Your task to perform on an android device: Open accessibility settings Image 0: 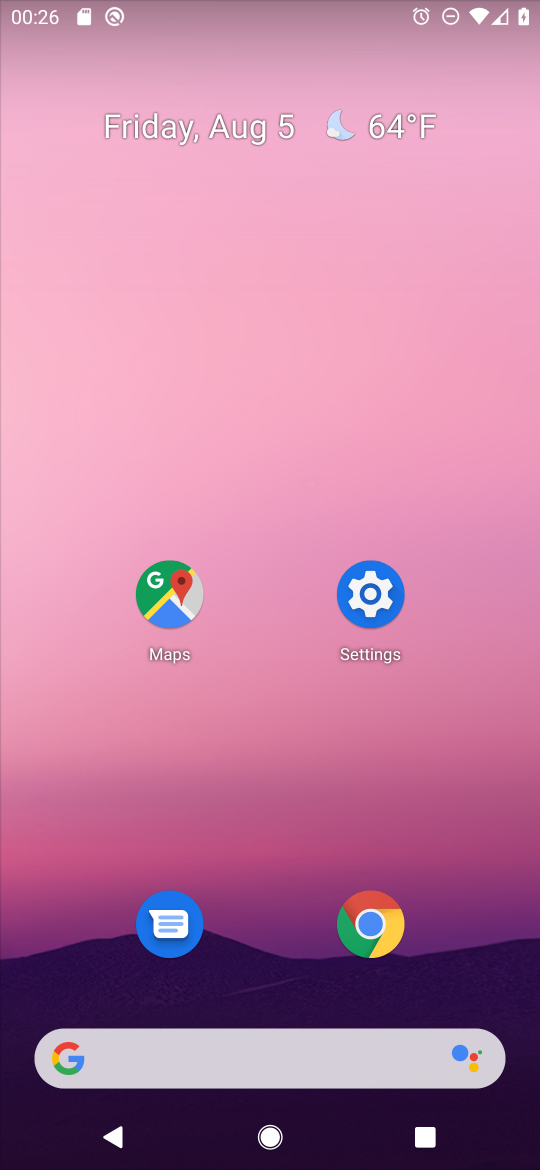
Step 0: click (374, 606)
Your task to perform on an android device: Open accessibility settings Image 1: 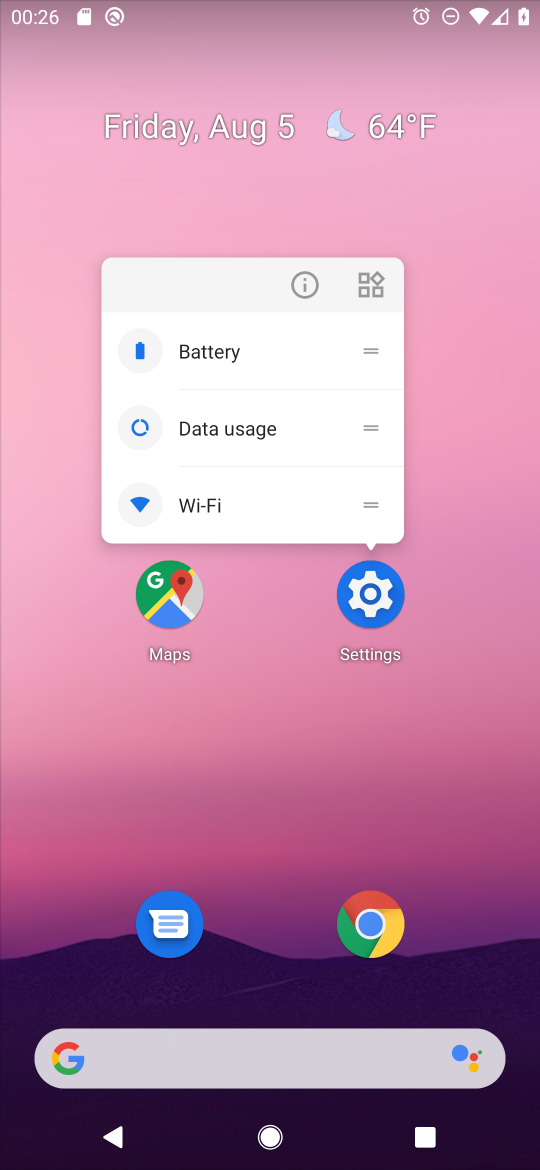
Step 1: click (378, 599)
Your task to perform on an android device: Open accessibility settings Image 2: 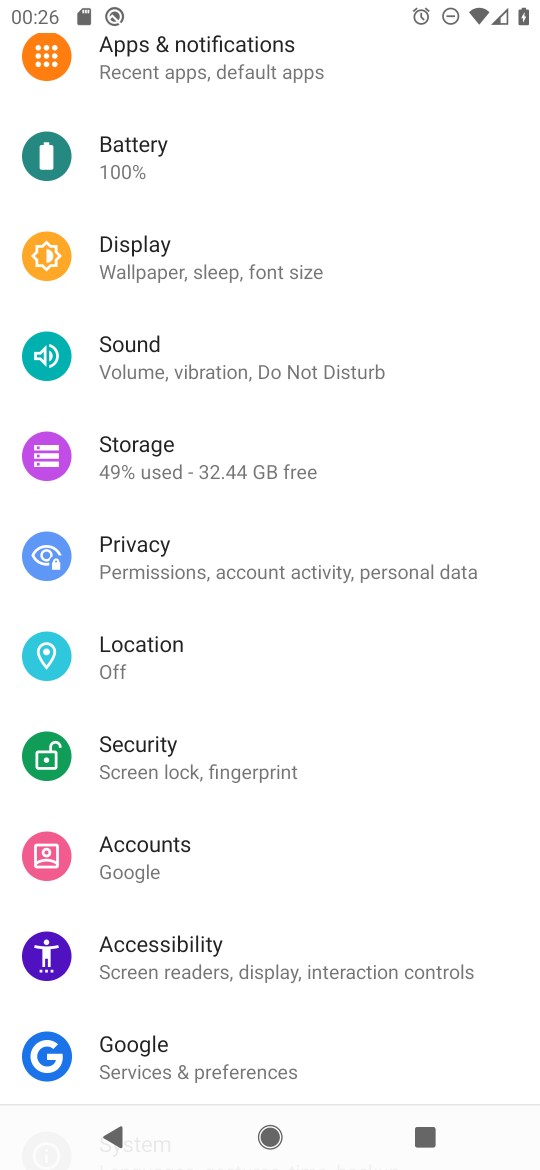
Step 2: click (149, 941)
Your task to perform on an android device: Open accessibility settings Image 3: 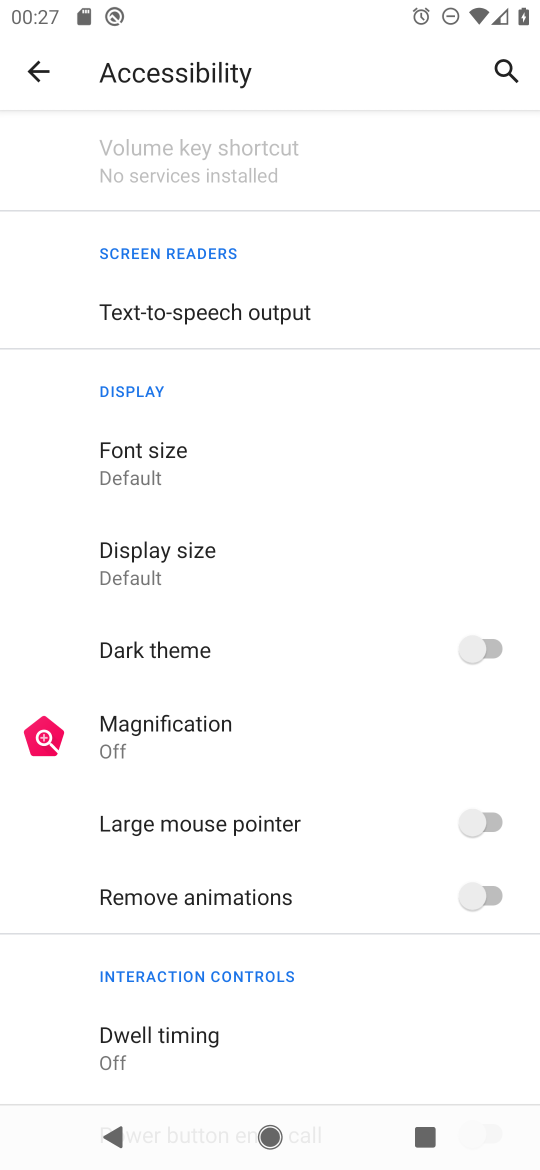
Step 3: task complete